Your task to perform on an android device: Open Youtube and go to "Your channel" Image 0: 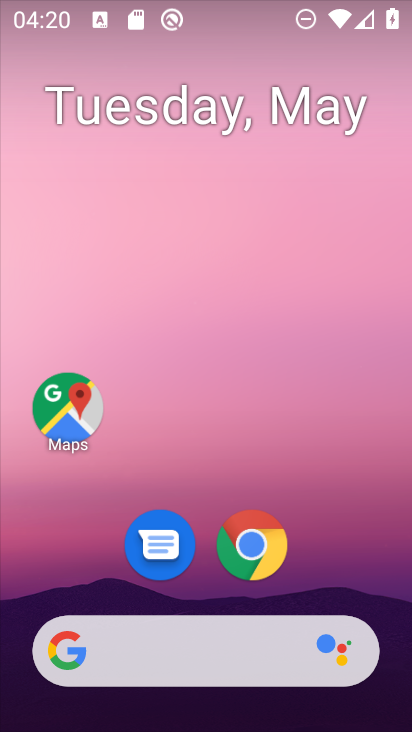
Step 0: drag from (397, 617) to (338, 98)
Your task to perform on an android device: Open Youtube and go to "Your channel" Image 1: 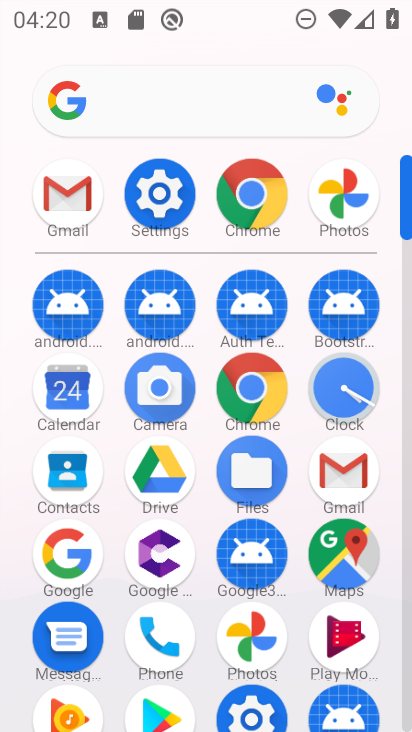
Step 1: click (404, 682)
Your task to perform on an android device: Open Youtube and go to "Your channel" Image 2: 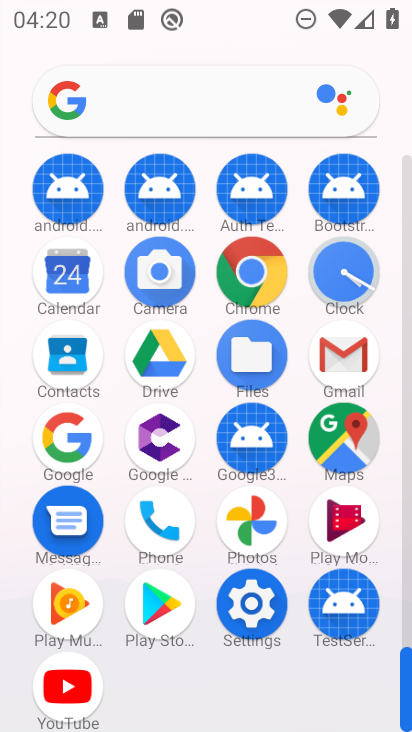
Step 2: click (70, 683)
Your task to perform on an android device: Open Youtube and go to "Your channel" Image 3: 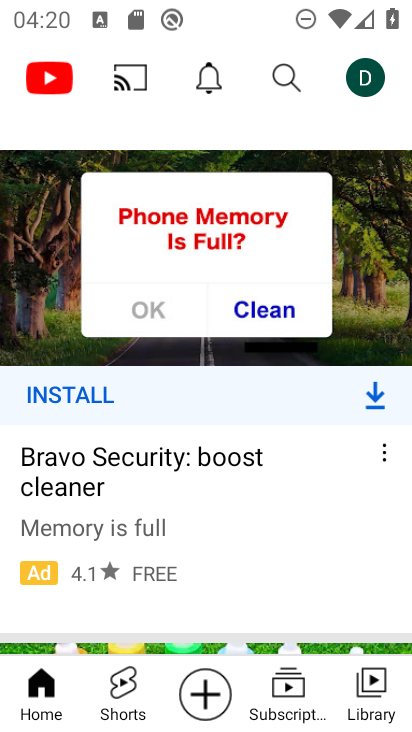
Step 3: click (366, 77)
Your task to perform on an android device: Open Youtube and go to "Your channel" Image 4: 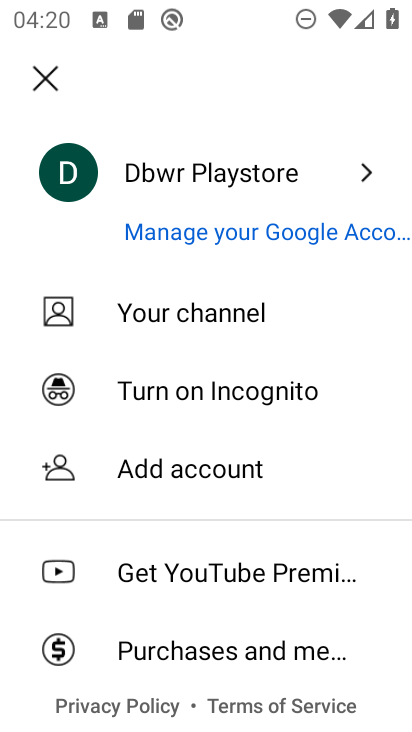
Step 4: click (200, 318)
Your task to perform on an android device: Open Youtube and go to "Your channel" Image 5: 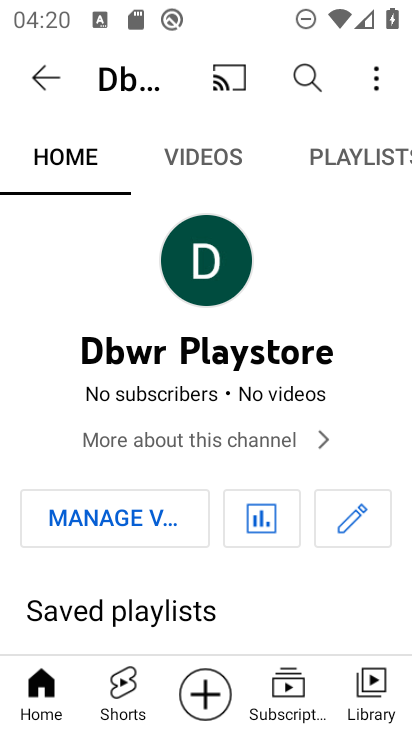
Step 5: task complete